Your task to perform on an android device: Go to sound settings Image 0: 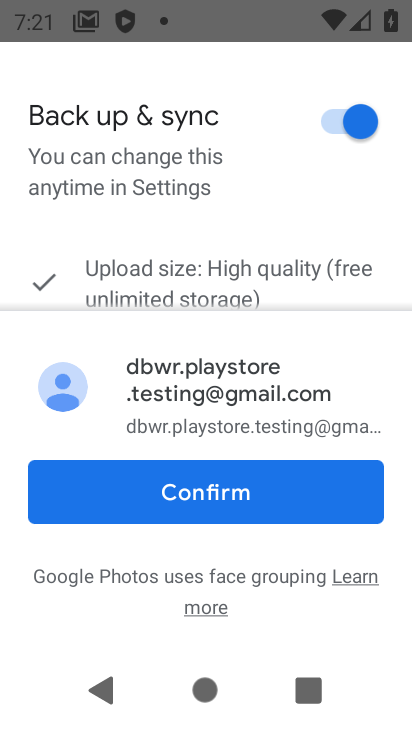
Step 0: press home button
Your task to perform on an android device: Go to sound settings Image 1: 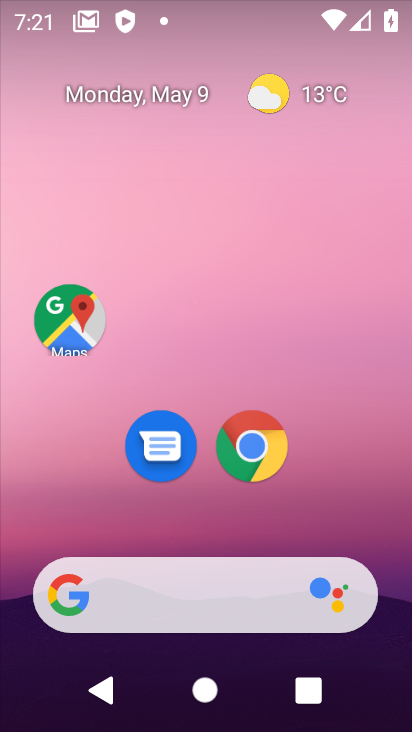
Step 1: drag from (308, 499) to (338, 123)
Your task to perform on an android device: Go to sound settings Image 2: 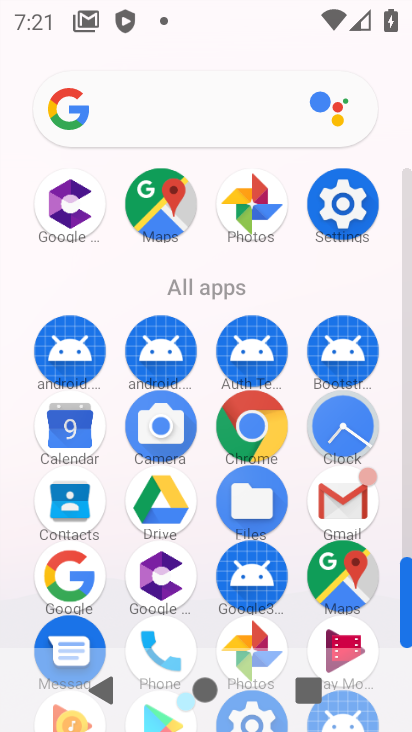
Step 2: click (340, 243)
Your task to perform on an android device: Go to sound settings Image 3: 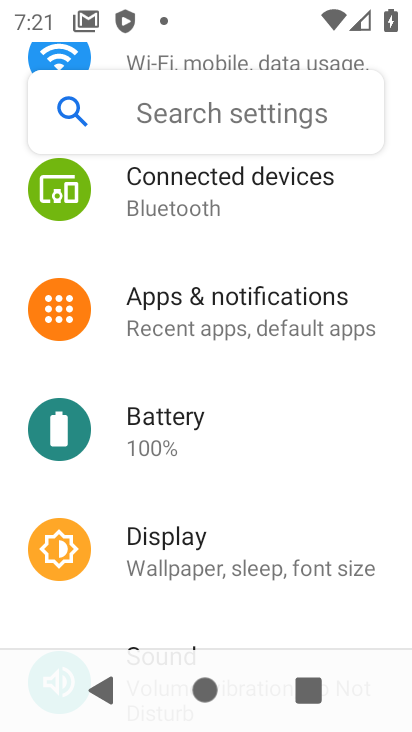
Step 3: drag from (252, 509) to (267, 177)
Your task to perform on an android device: Go to sound settings Image 4: 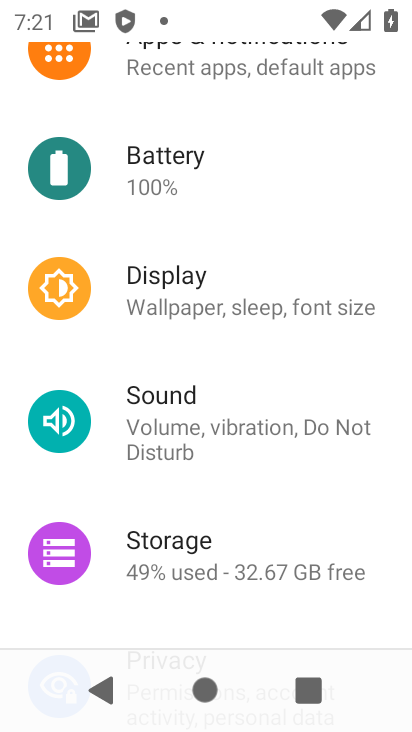
Step 4: click (234, 430)
Your task to perform on an android device: Go to sound settings Image 5: 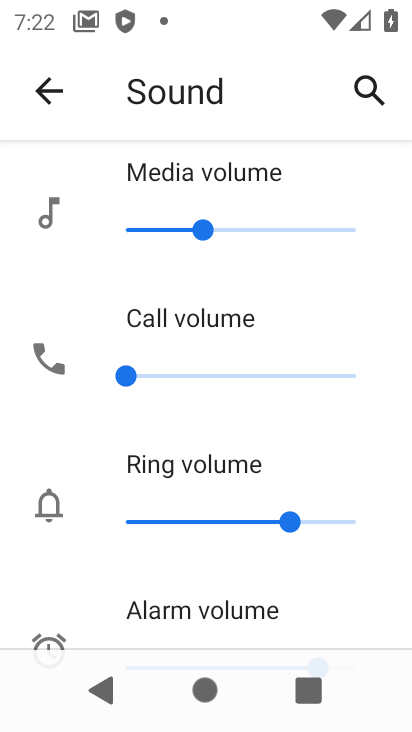
Step 5: task complete